Your task to perform on an android device: turn off notifications in google photos Image 0: 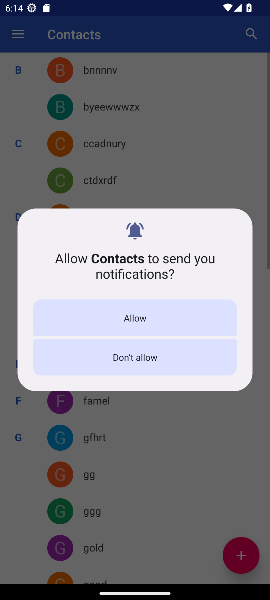
Step 0: press home button
Your task to perform on an android device: turn off notifications in google photos Image 1: 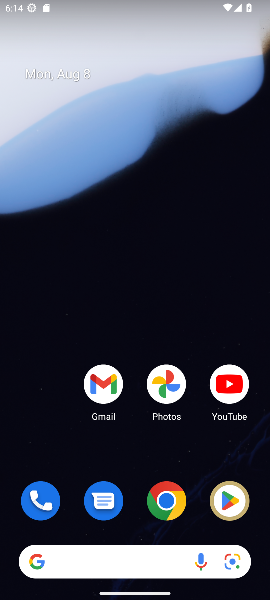
Step 1: click (172, 375)
Your task to perform on an android device: turn off notifications in google photos Image 2: 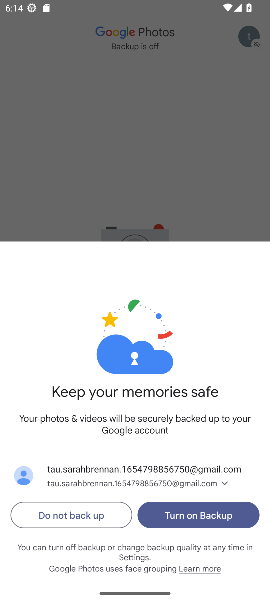
Step 2: click (82, 514)
Your task to perform on an android device: turn off notifications in google photos Image 3: 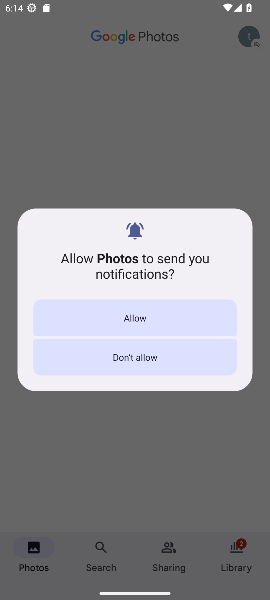
Step 3: click (137, 315)
Your task to perform on an android device: turn off notifications in google photos Image 4: 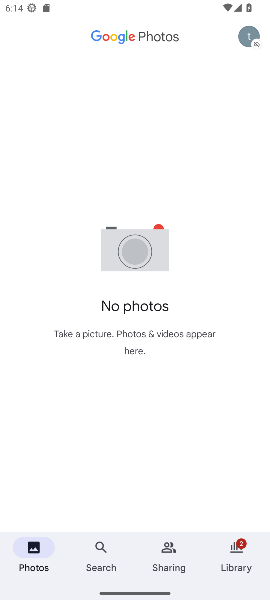
Step 4: click (248, 37)
Your task to perform on an android device: turn off notifications in google photos Image 5: 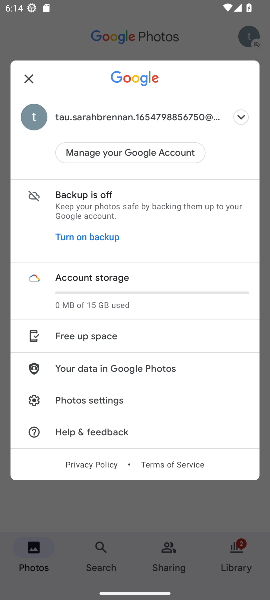
Step 5: click (107, 401)
Your task to perform on an android device: turn off notifications in google photos Image 6: 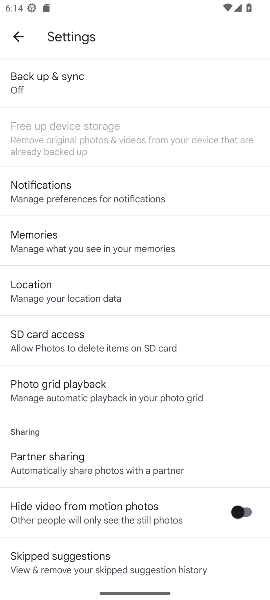
Step 6: click (80, 188)
Your task to perform on an android device: turn off notifications in google photos Image 7: 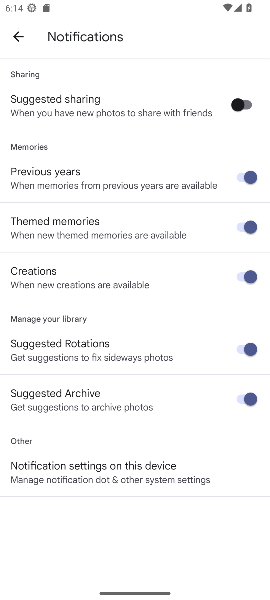
Step 7: click (91, 467)
Your task to perform on an android device: turn off notifications in google photos Image 8: 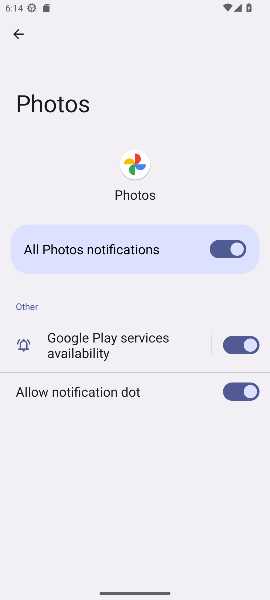
Step 8: click (209, 245)
Your task to perform on an android device: turn off notifications in google photos Image 9: 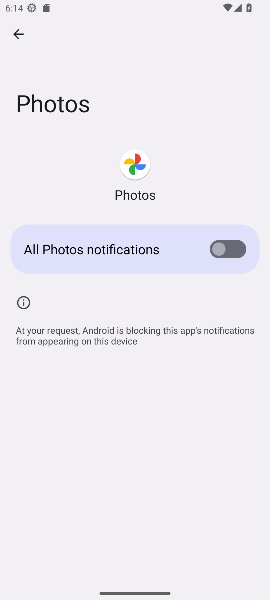
Step 9: task complete